Your task to perform on an android device: Add "amazon basics triple a" to the cart on newegg.com, then select checkout. Image 0: 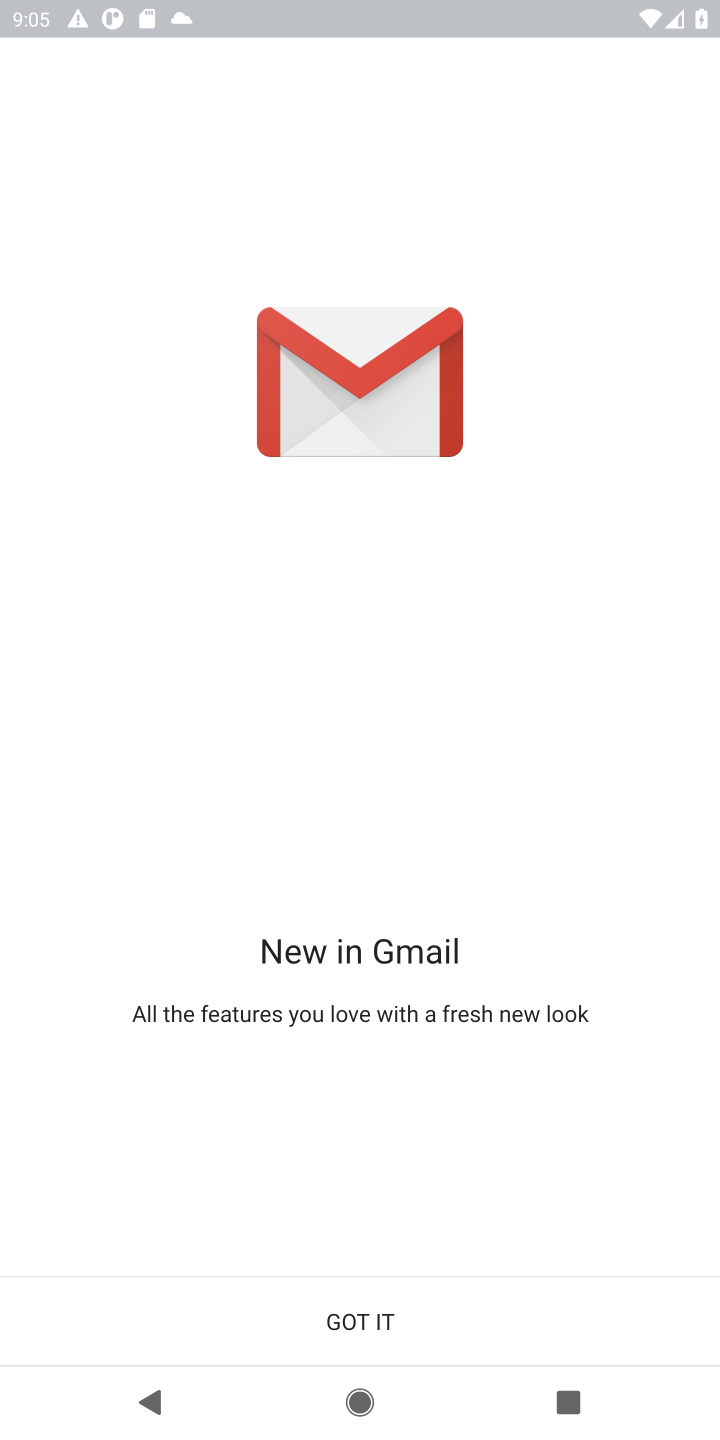
Step 0: press home button
Your task to perform on an android device: Add "amazon basics triple a" to the cart on newegg.com, then select checkout. Image 1: 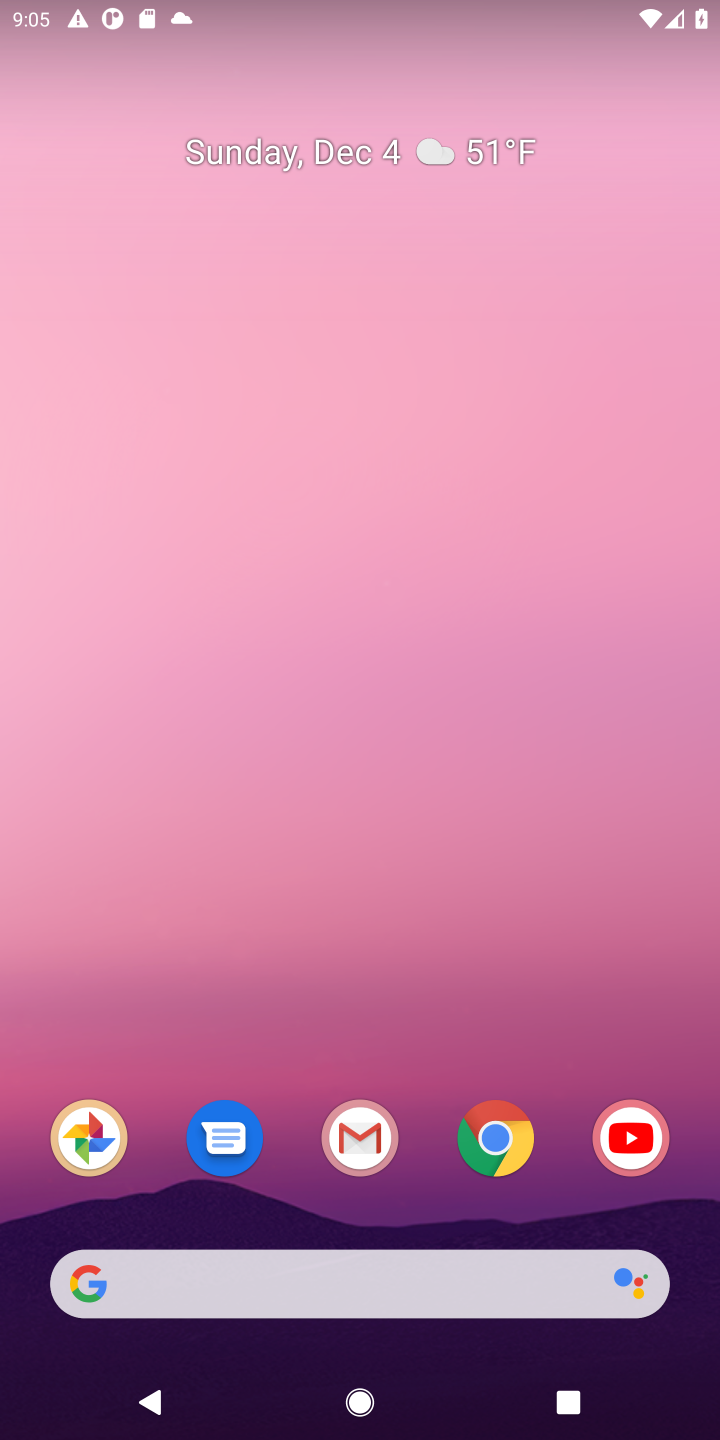
Step 1: click (506, 1129)
Your task to perform on an android device: Add "amazon basics triple a" to the cart on newegg.com, then select checkout. Image 2: 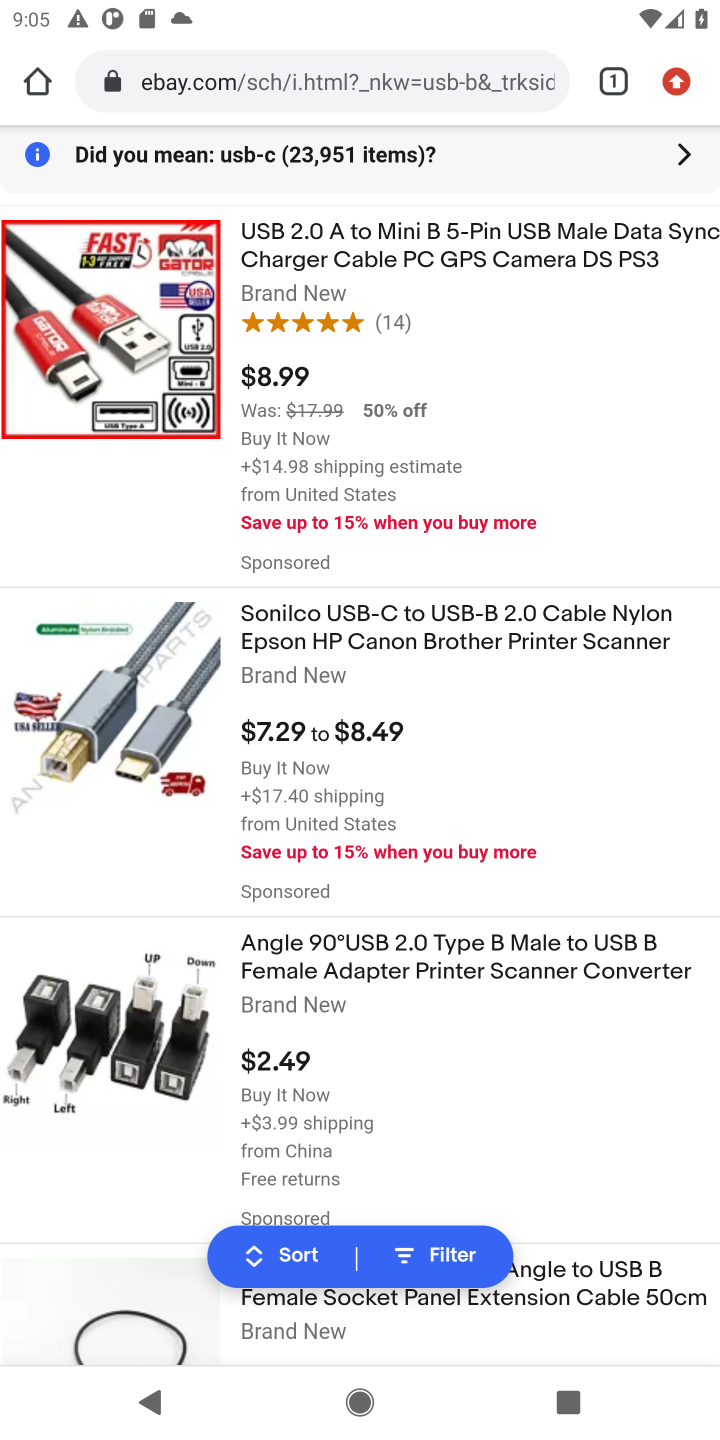
Step 2: click (348, 71)
Your task to perform on an android device: Add "amazon basics triple a" to the cart on newegg.com, then select checkout. Image 3: 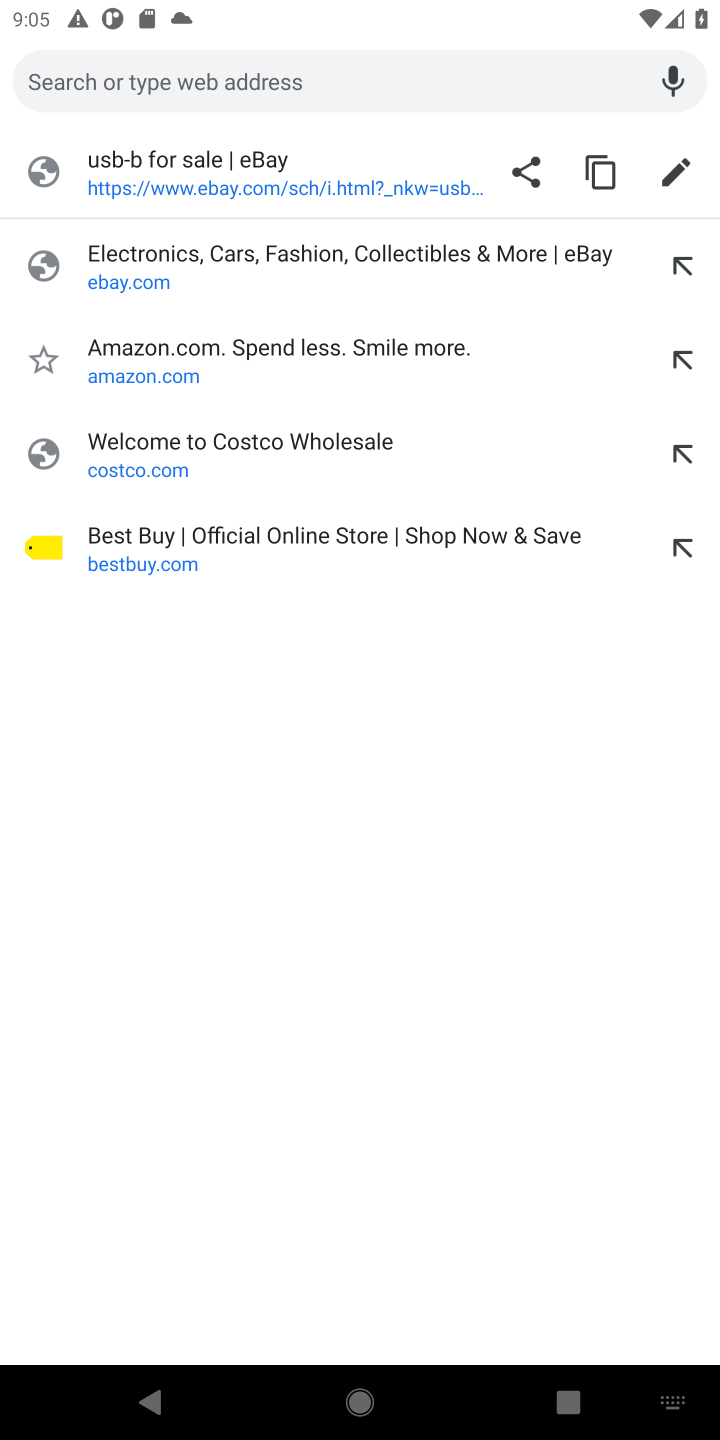
Step 3: type "newegg.com"
Your task to perform on an android device: Add "amazon basics triple a" to the cart on newegg.com, then select checkout. Image 4: 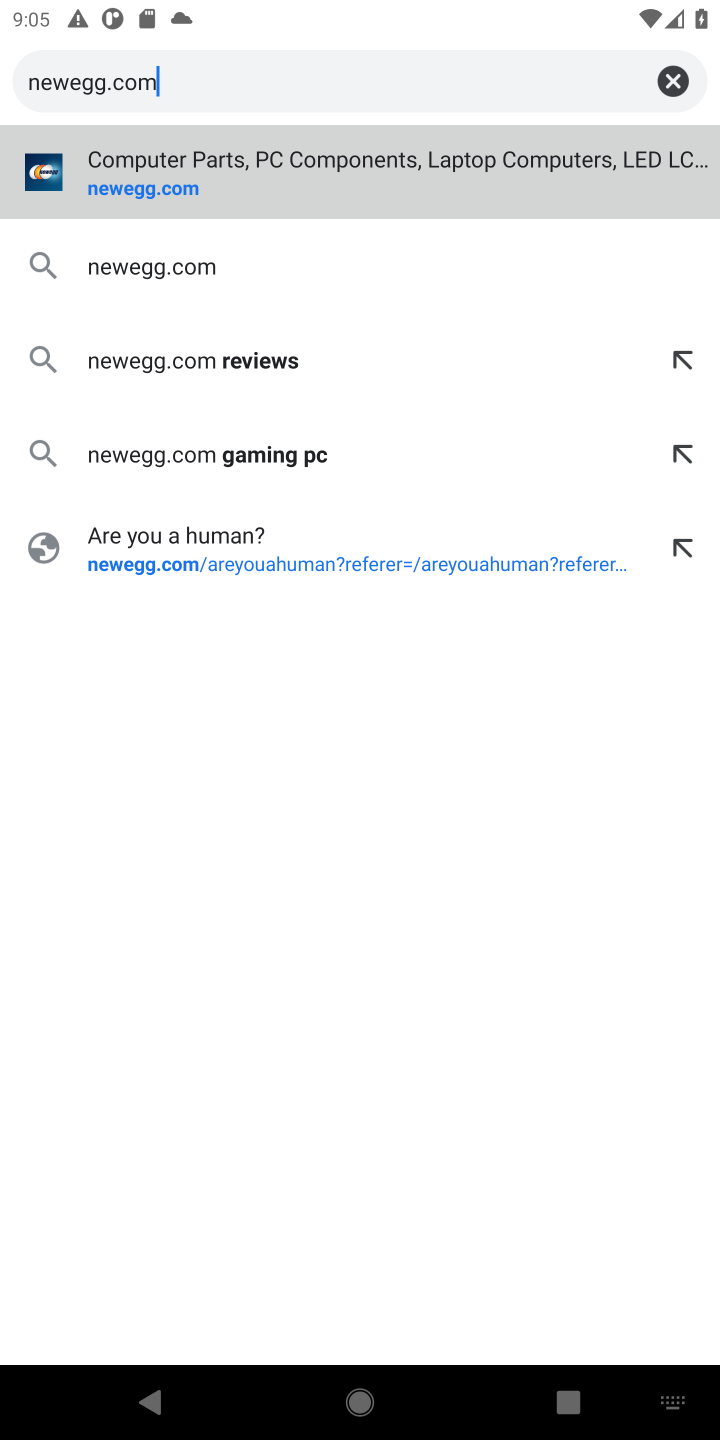
Step 4: press enter
Your task to perform on an android device: Add "amazon basics triple a" to the cart on newegg.com, then select checkout. Image 5: 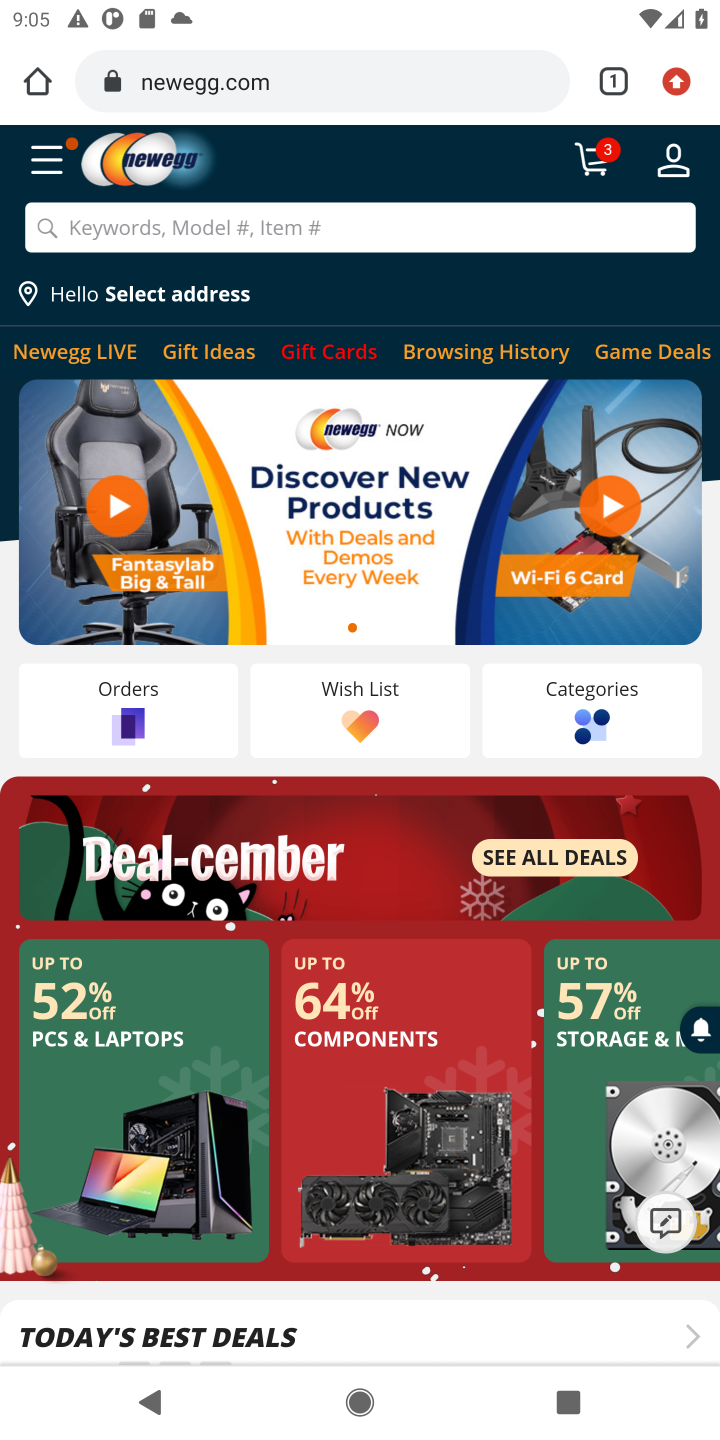
Step 5: click (460, 225)
Your task to perform on an android device: Add "amazon basics triple a" to the cart on newegg.com, then select checkout. Image 6: 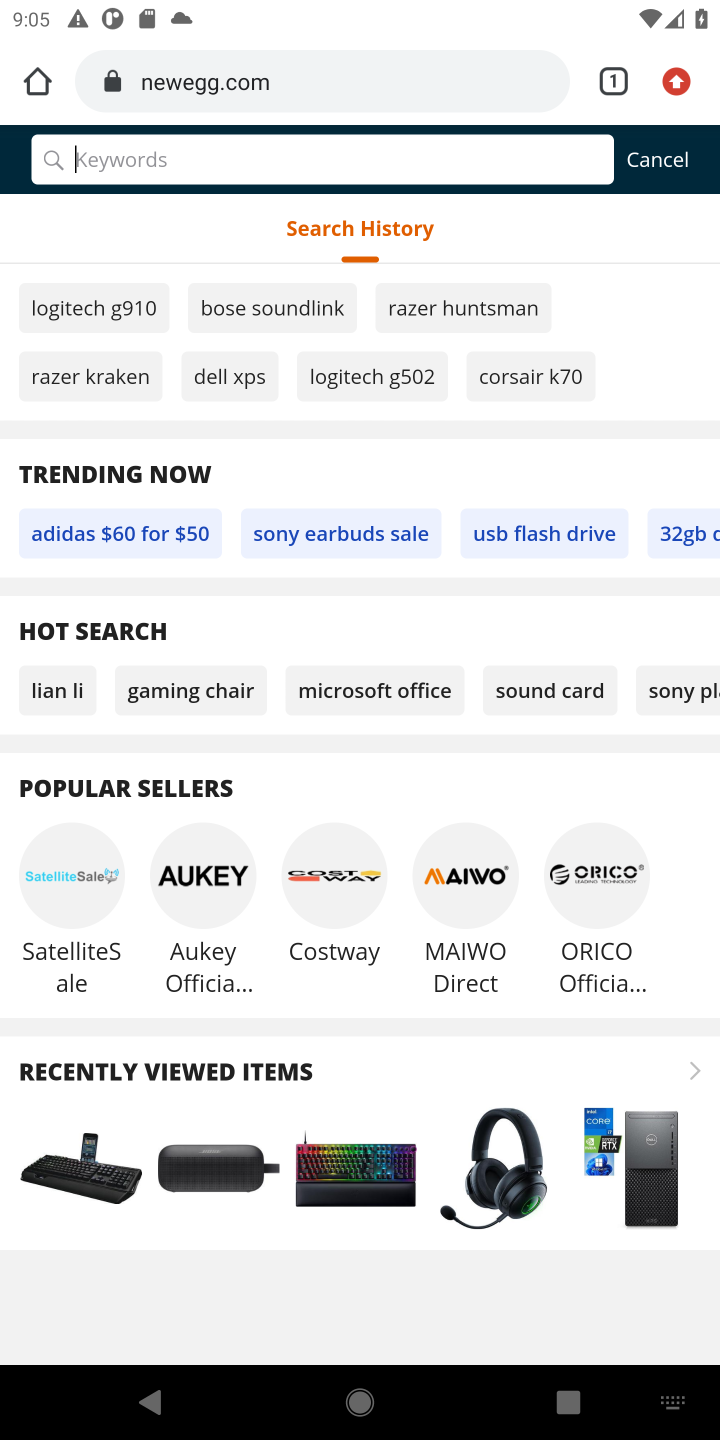
Step 6: type "amazon basics triple a"
Your task to perform on an android device: Add "amazon basics triple a" to the cart on newegg.com, then select checkout. Image 7: 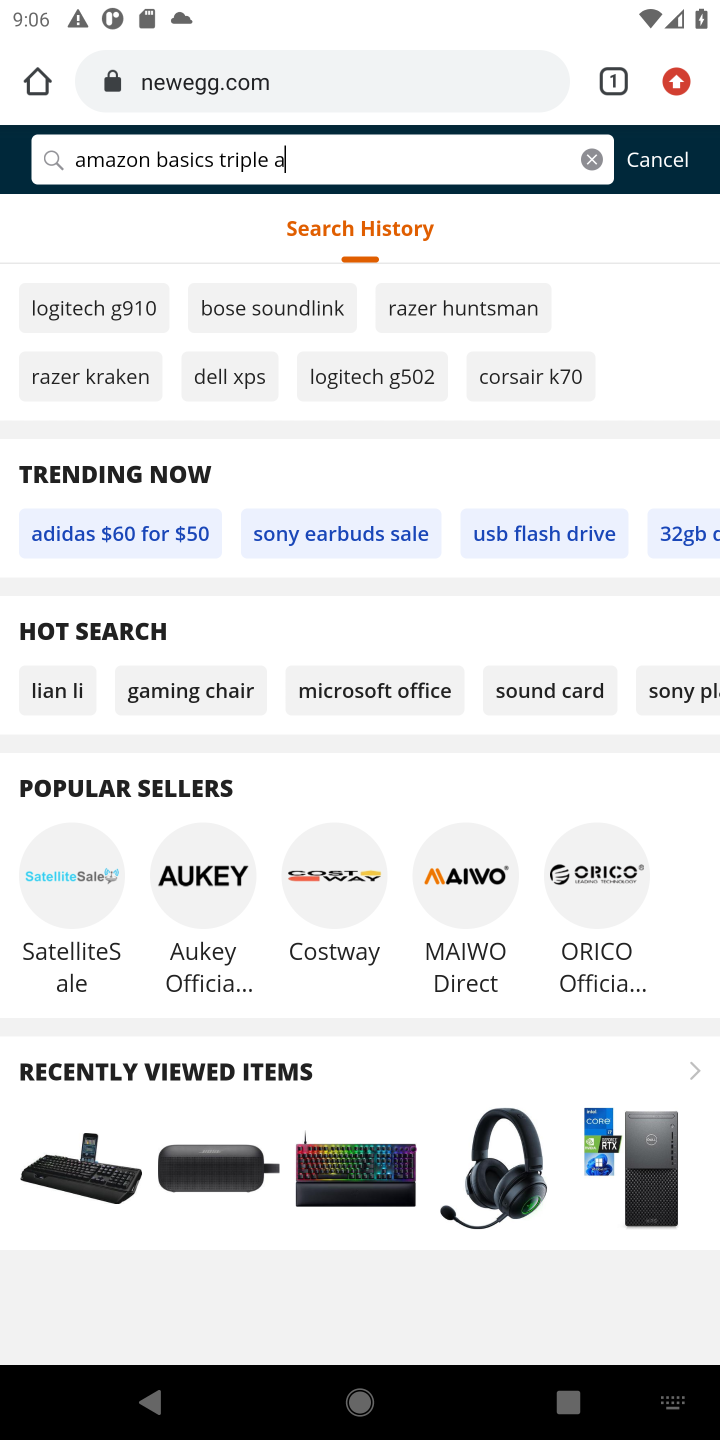
Step 7: press enter
Your task to perform on an android device: Add "amazon basics triple a" to the cart on newegg.com, then select checkout. Image 8: 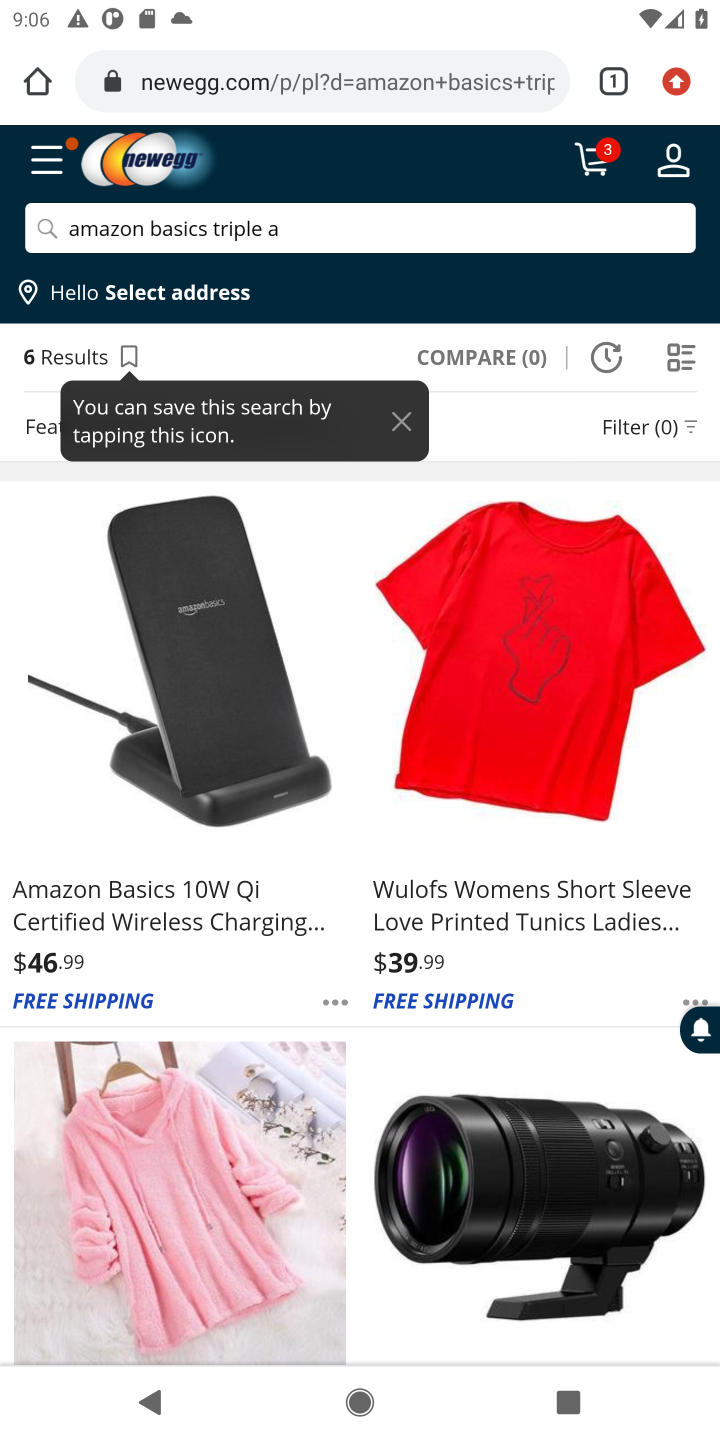
Step 8: task complete